Your task to perform on an android device: empty trash in the gmail app Image 0: 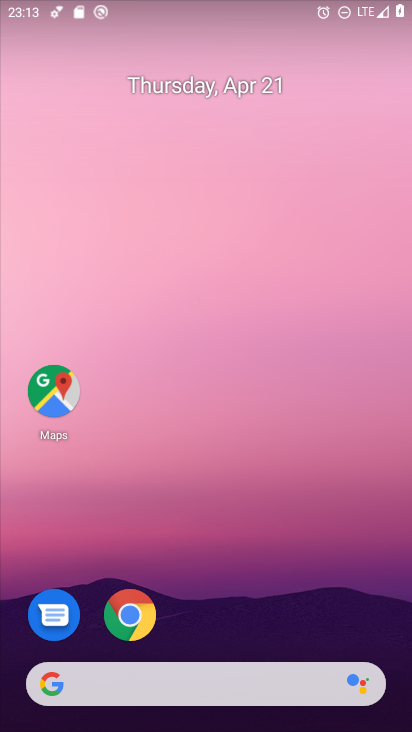
Step 0: drag from (217, 633) to (233, 144)
Your task to perform on an android device: empty trash in the gmail app Image 1: 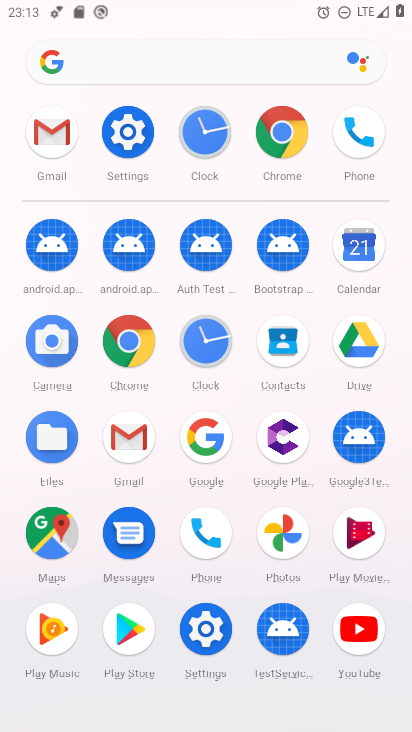
Step 1: click (126, 431)
Your task to perform on an android device: empty trash in the gmail app Image 2: 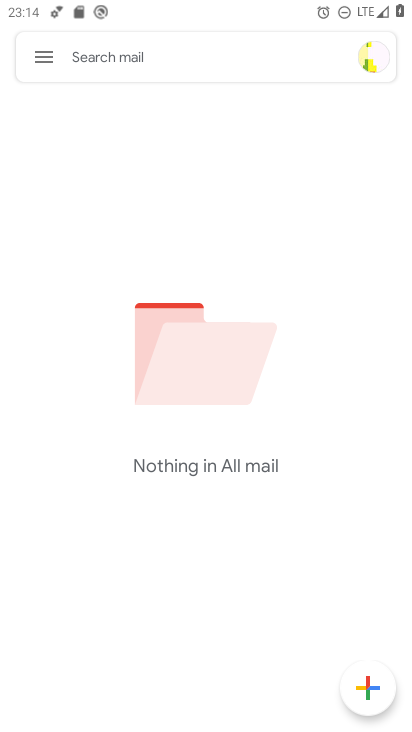
Step 2: click (34, 51)
Your task to perform on an android device: empty trash in the gmail app Image 3: 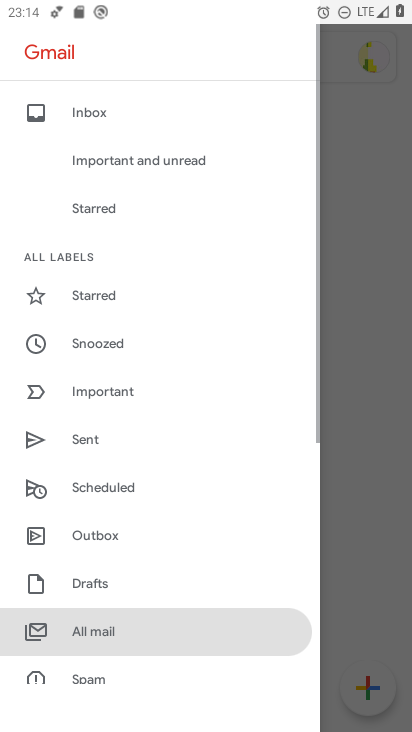
Step 3: click (39, 55)
Your task to perform on an android device: empty trash in the gmail app Image 4: 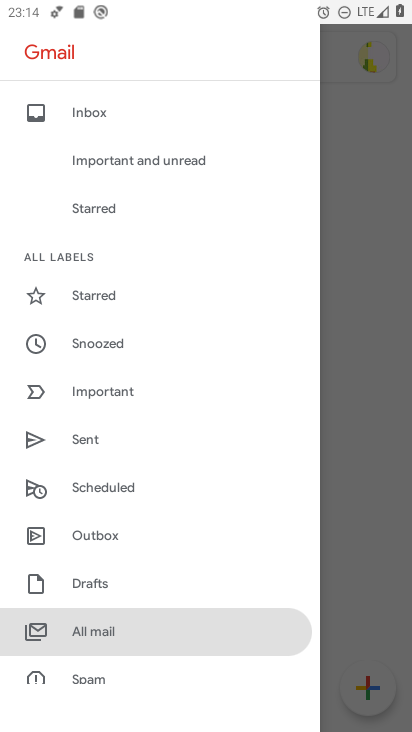
Step 4: drag from (129, 642) to (117, 195)
Your task to perform on an android device: empty trash in the gmail app Image 5: 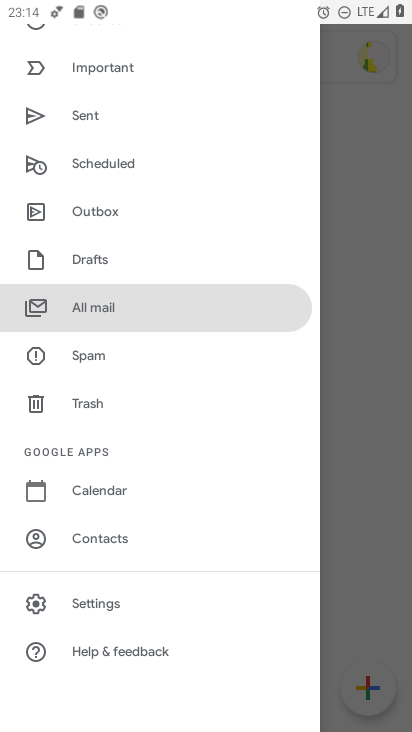
Step 5: click (103, 397)
Your task to perform on an android device: empty trash in the gmail app Image 6: 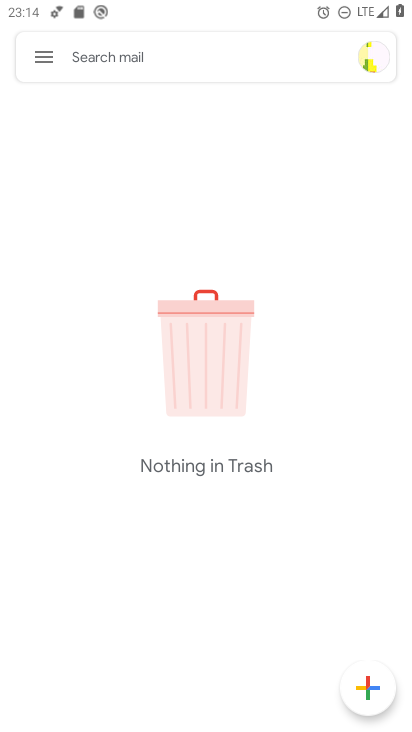
Step 6: task complete